Your task to perform on an android device: toggle javascript in the chrome app Image 0: 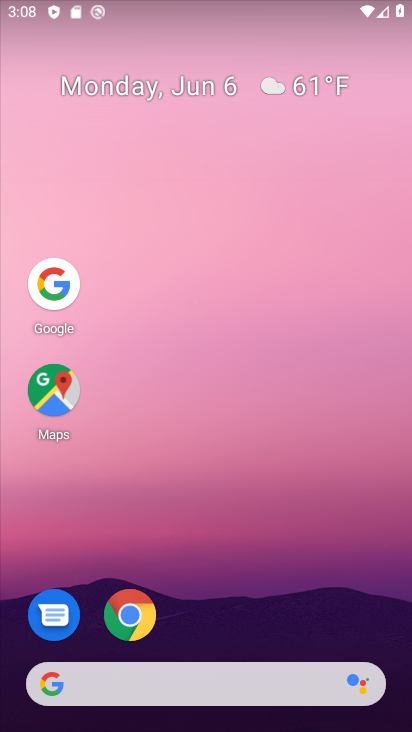
Step 0: click (140, 613)
Your task to perform on an android device: toggle javascript in the chrome app Image 1: 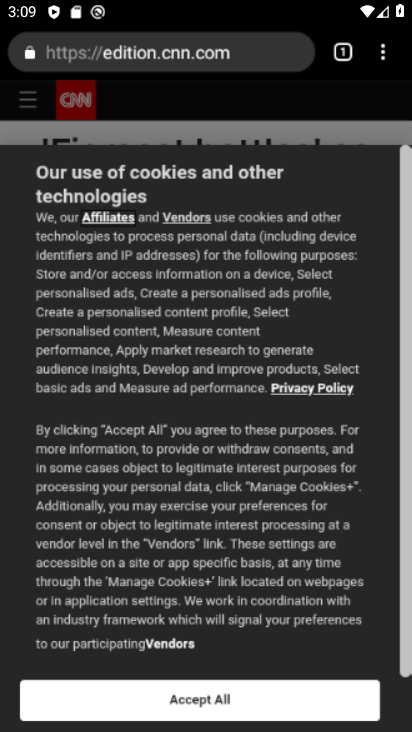
Step 1: click (382, 56)
Your task to perform on an android device: toggle javascript in the chrome app Image 2: 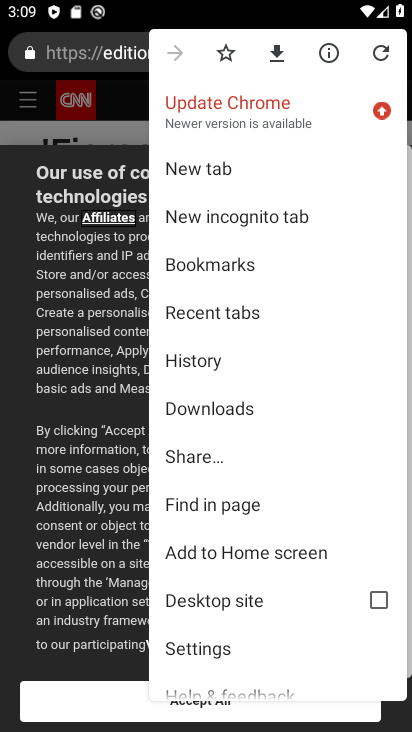
Step 2: click (278, 193)
Your task to perform on an android device: toggle javascript in the chrome app Image 3: 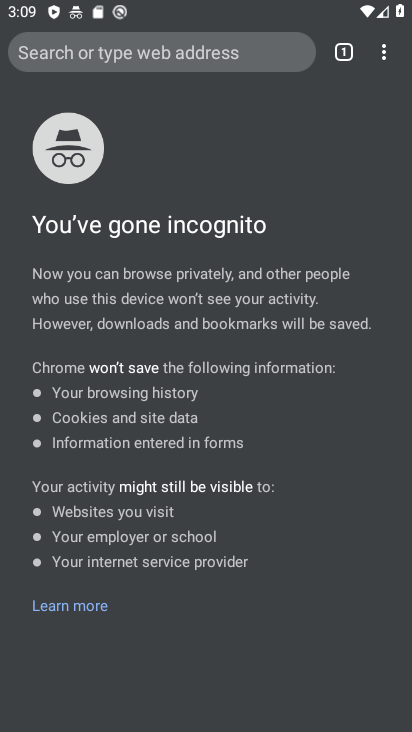
Step 3: click (388, 61)
Your task to perform on an android device: toggle javascript in the chrome app Image 4: 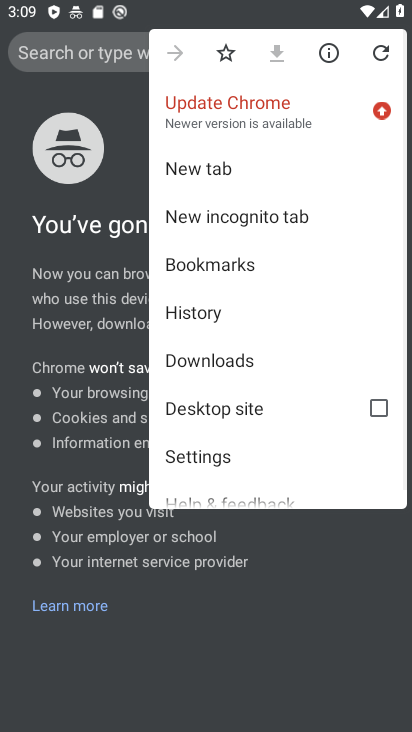
Step 4: click (250, 463)
Your task to perform on an android device: toggle javascript in the chrome app Image 5: 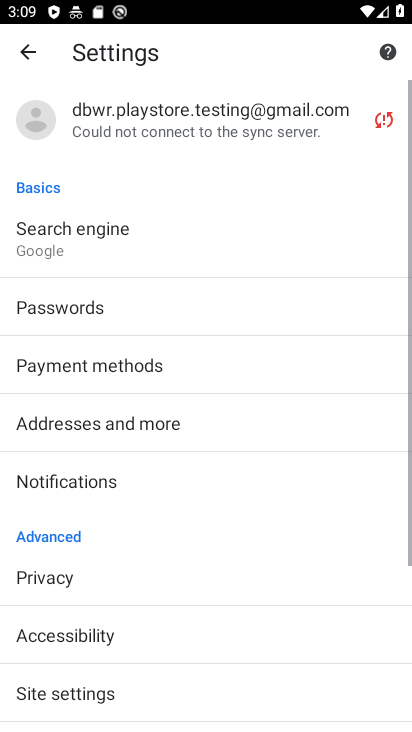
Step 5: drag from (177, 590) to (177, 207)
Your task to perform on an android device: toggle javascript in the chrome app Image 6: 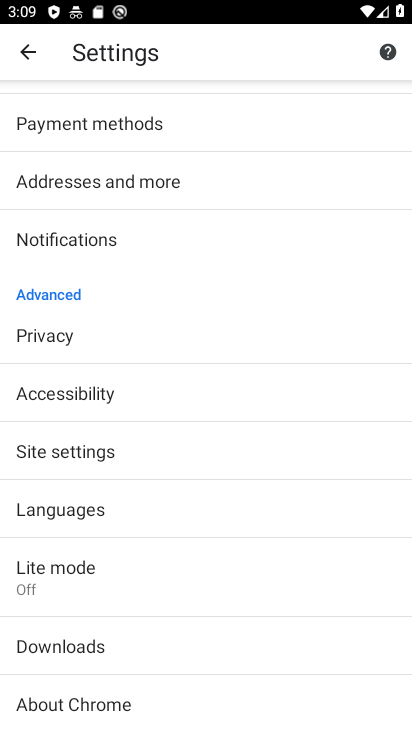
Step 6: click (78, 455)
Your task to perform on an android device: toggle javascript in the chrome app Image 7: 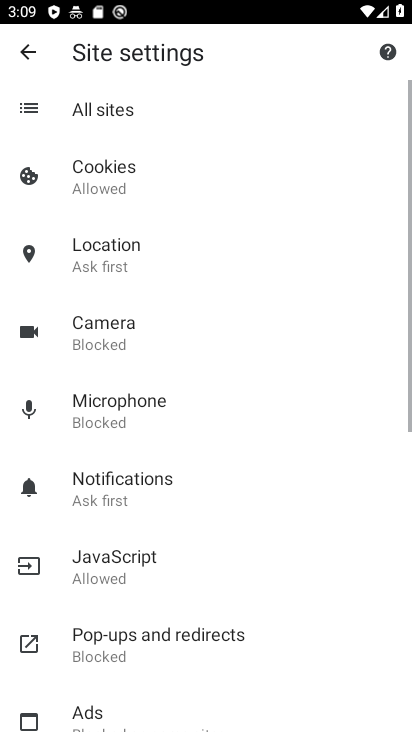
Step 7: click (185, 556)
Your task to perform on an android device: toggle javascript in the chrome app Image 8: 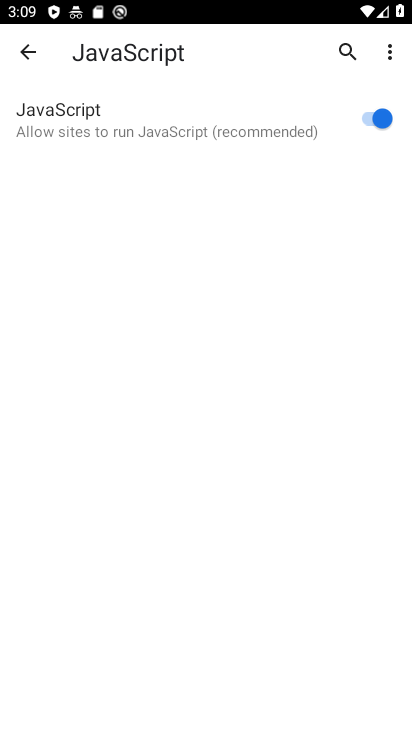
Step 8: click (370, 114)
Your task to perform on an android device: toggle javascript in the chrome app Image 9: 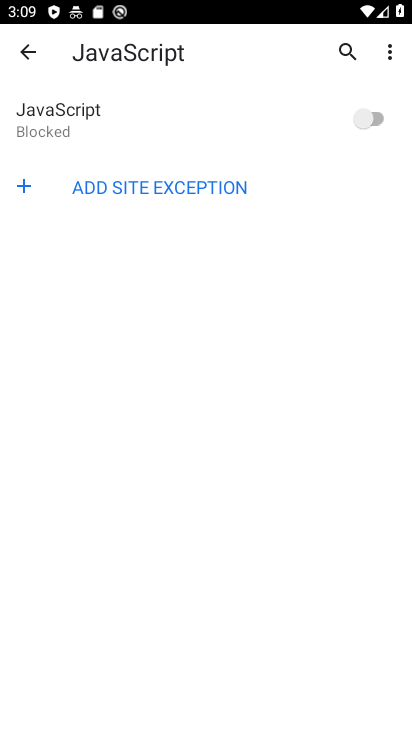
Step 9: task complete